Your task to perform on an android device: open app "McDonald's" (install if not already installed) Image 0: 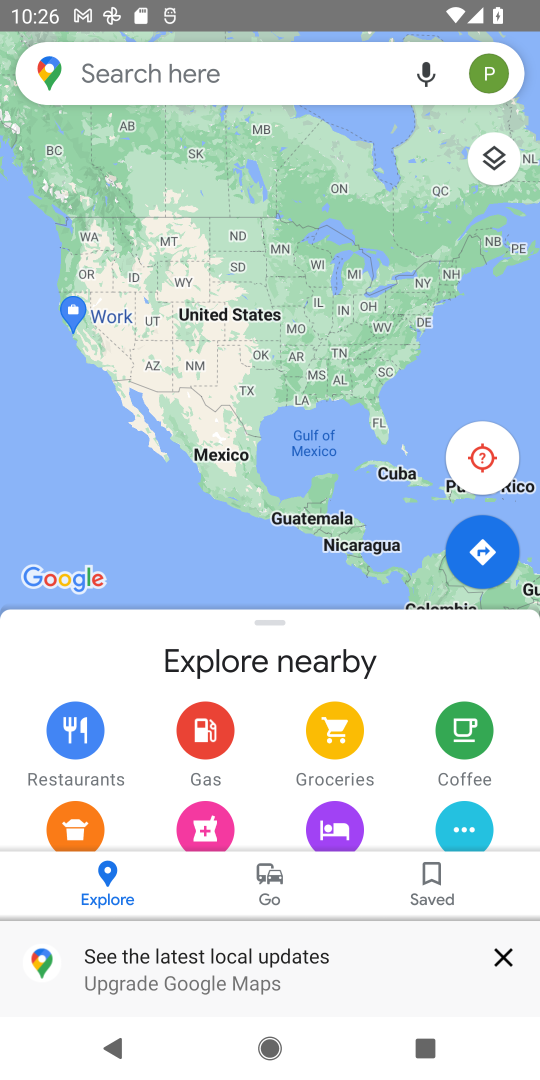
Step 0: press home button
Your task to perform on an android device: open app "McDonald's" (install if not already installed) Image 1: 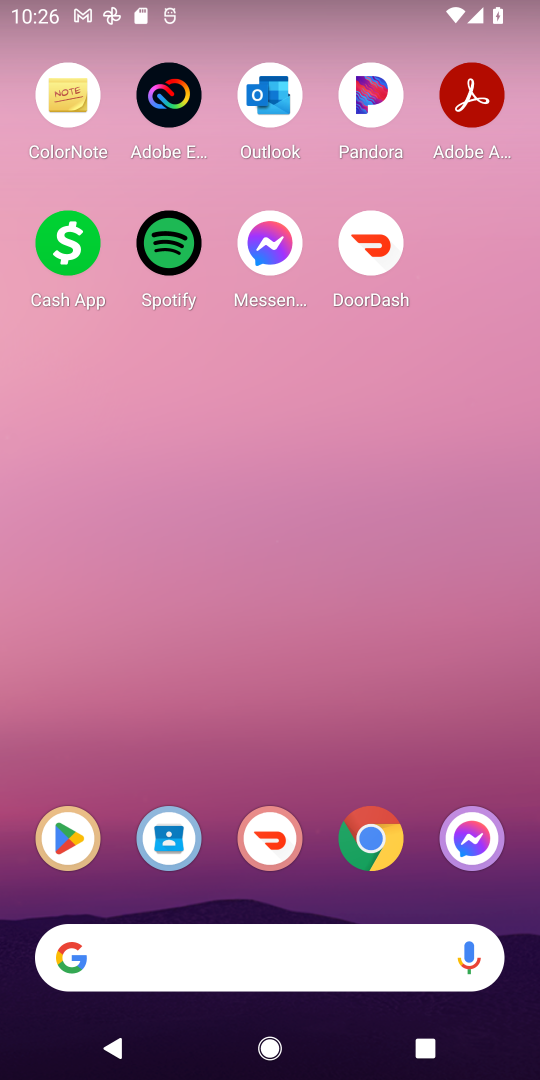
Step 1: click (34, 827)
Your task to perform on an android device: open app "McDonald's" (install if not already installed) Image 2: 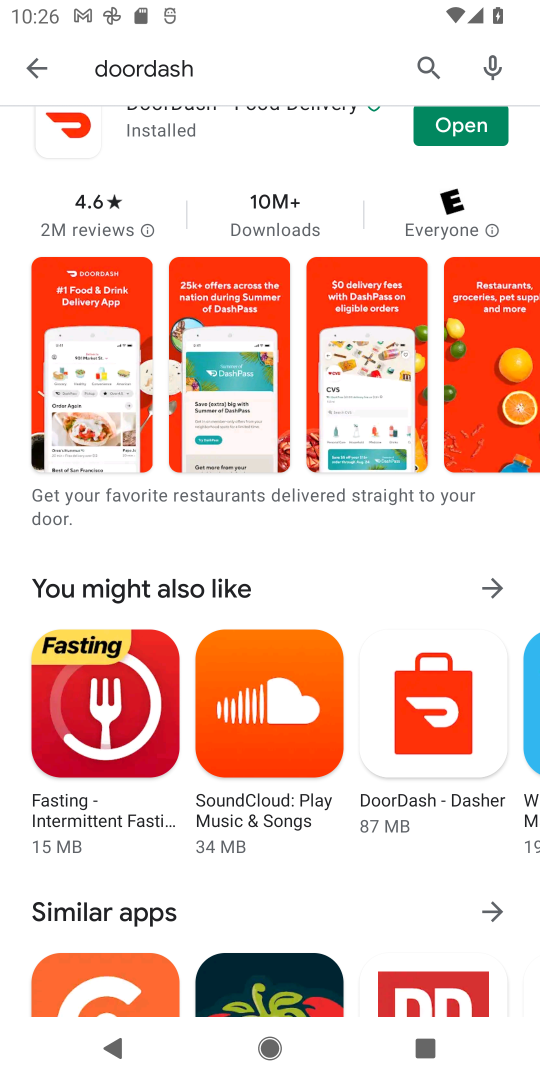
Step 2: click (254, 57)
Your task to perform on an android device: open app "McDonald's" (install if not already installed) Image 3: 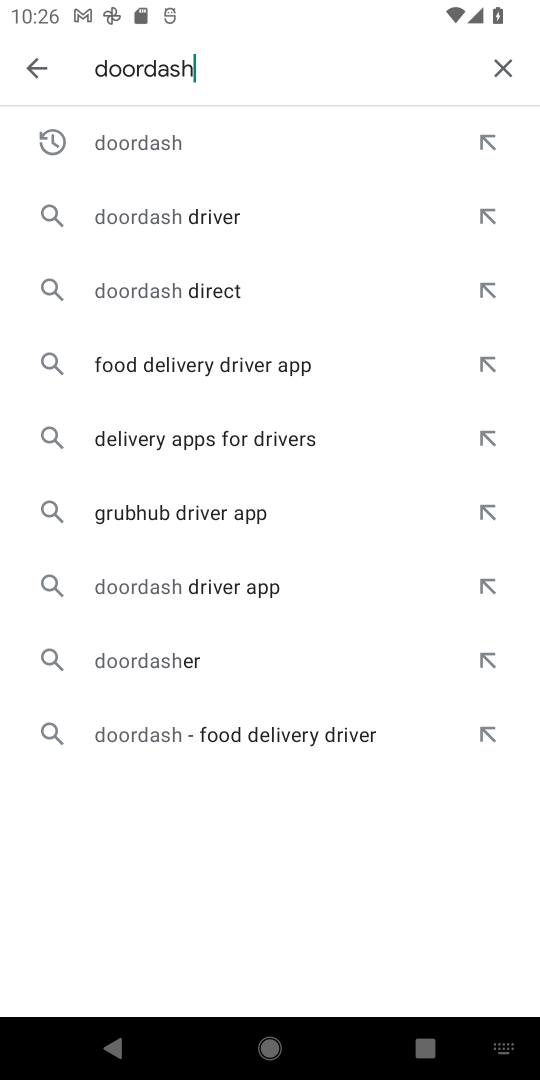
Step 3: click (496, 62)
Your task to perform on an android device: open app "McDonald's" (install if not already installed) Image 4: 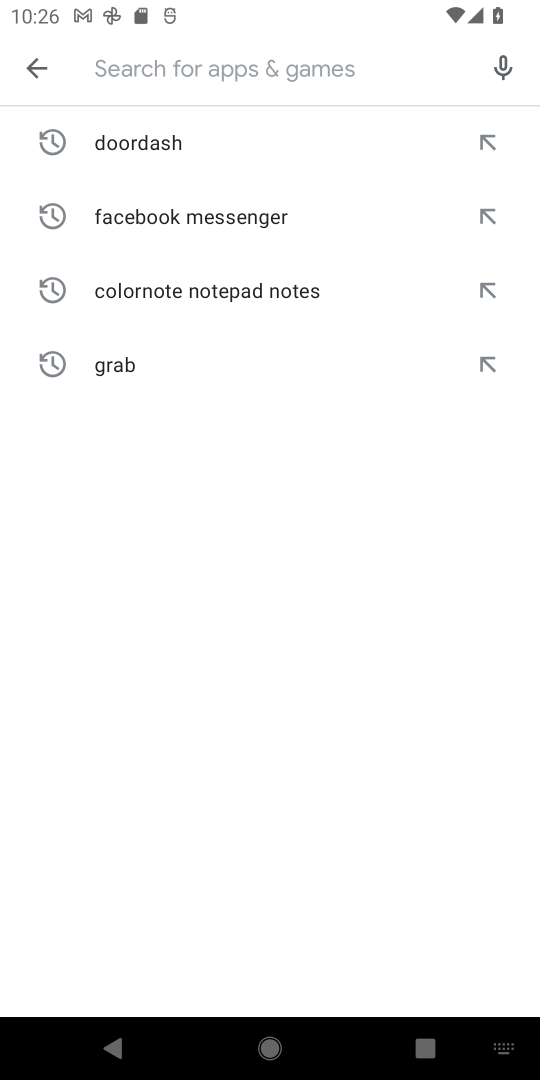
Step 4: type "Mcdonalds"
Your task to perform on an android device: open app "McDonald's" (install if not already installed) Image 5: 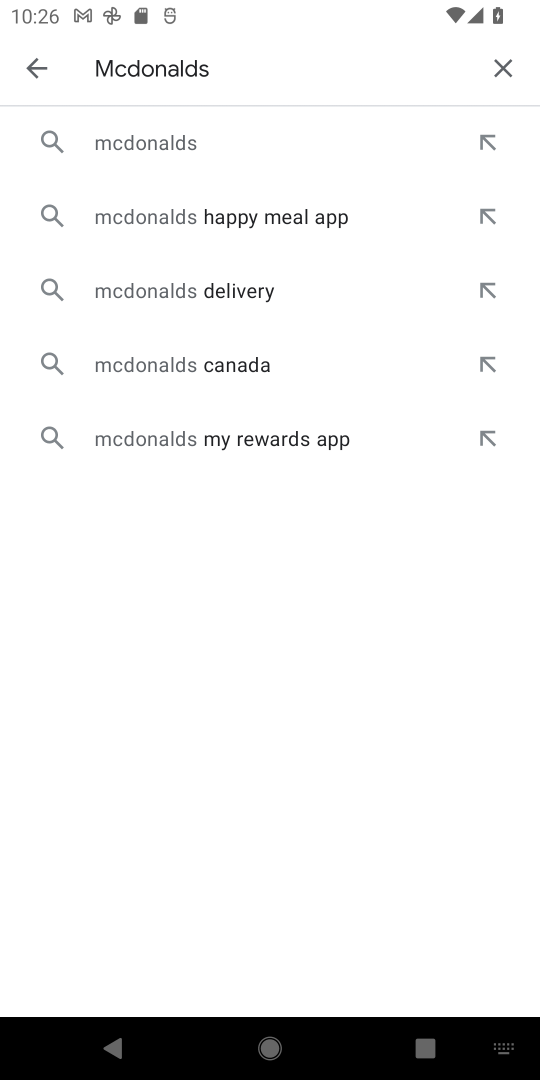
Step 5: click (189, 144)
Your task to perform on an android device: open app "McDonald's" (install if not already installed) Image 6: 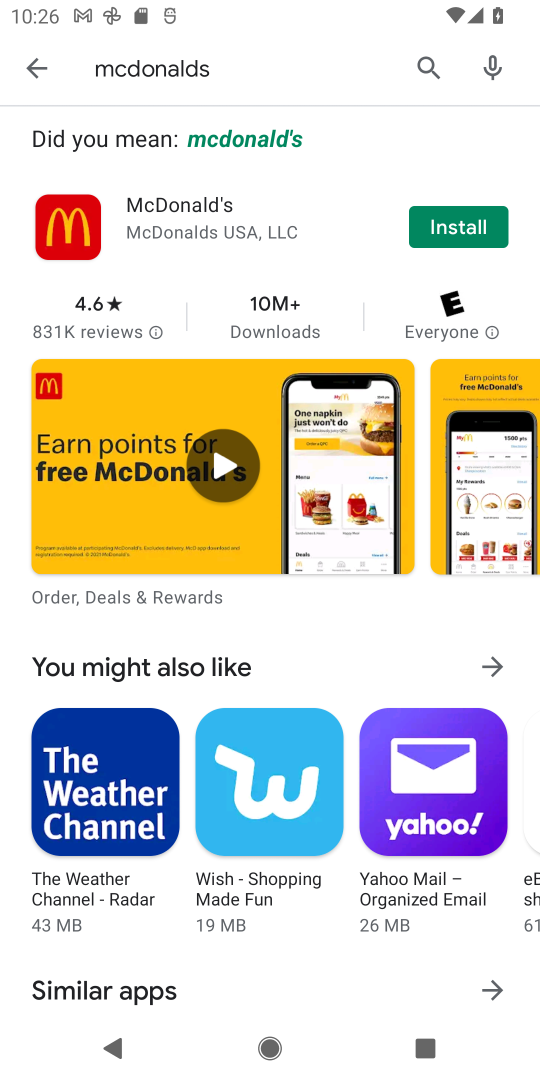
Step 6: click (435, 229)
Your task to perform on an android device: open app "McDonald's" (install if not already installed) Image 7: 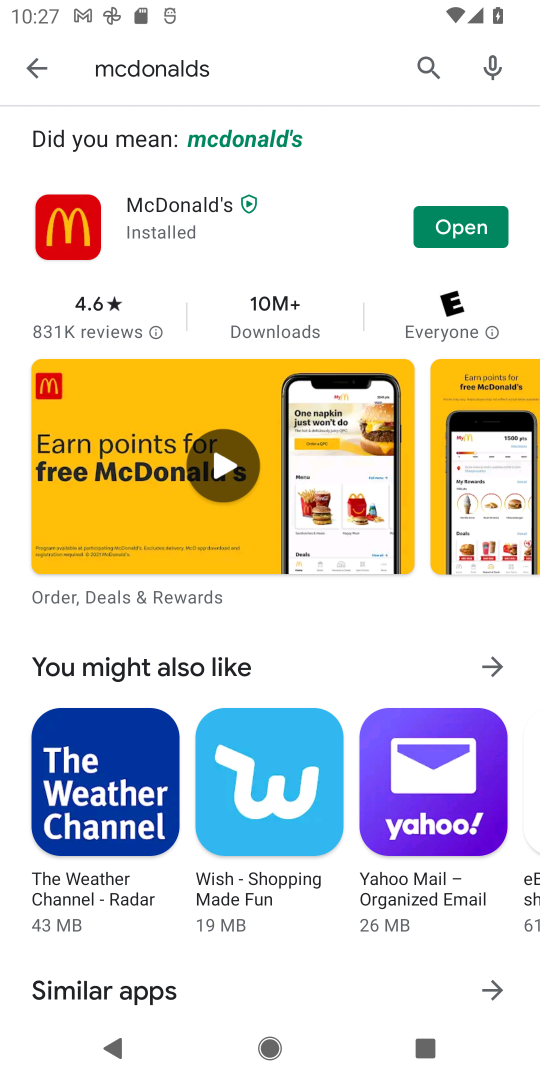
Step 7: click (479, 239)
Your task to perform on an android device: open app "McDonald's" (install if not already installed) Image 8: 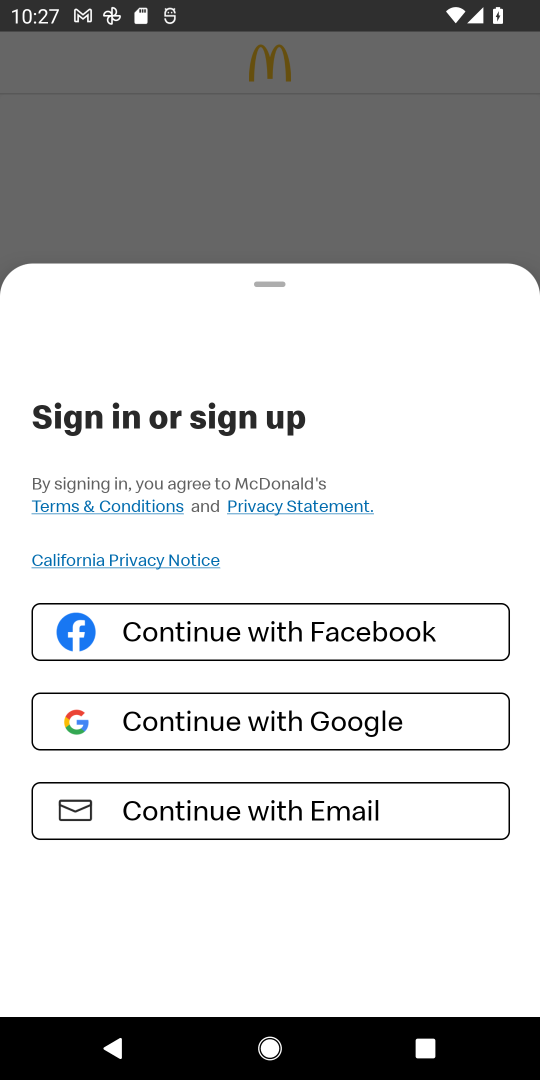
Step 8: click (327, 727)
Your task to perform on an android device: open app "McDonald's" (install if not already installed) Image 9: 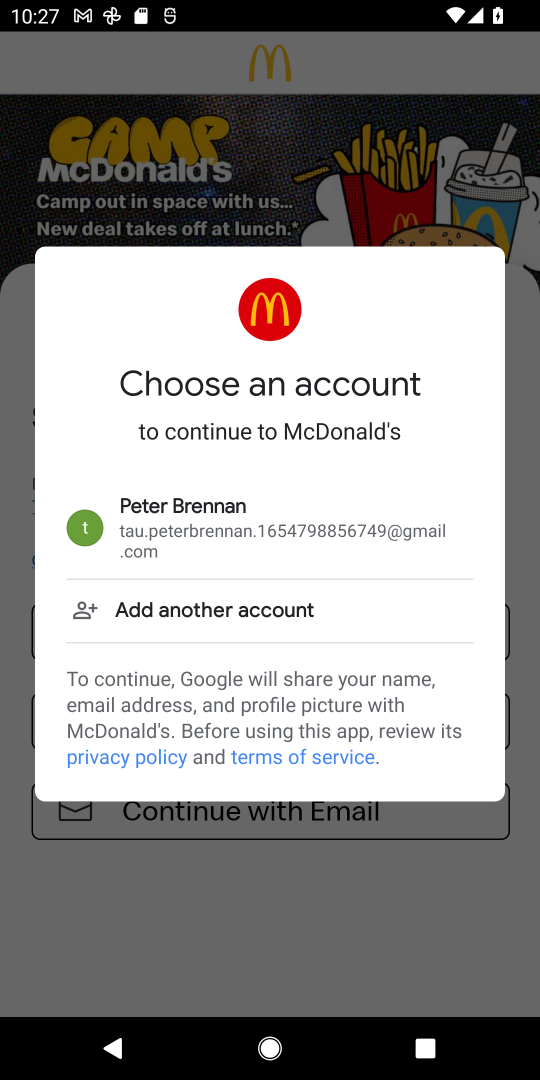
Step 9: click (235, 518)
Your task to perform on an android device: open app "McDonald's" (install if not already installed) Image 10: 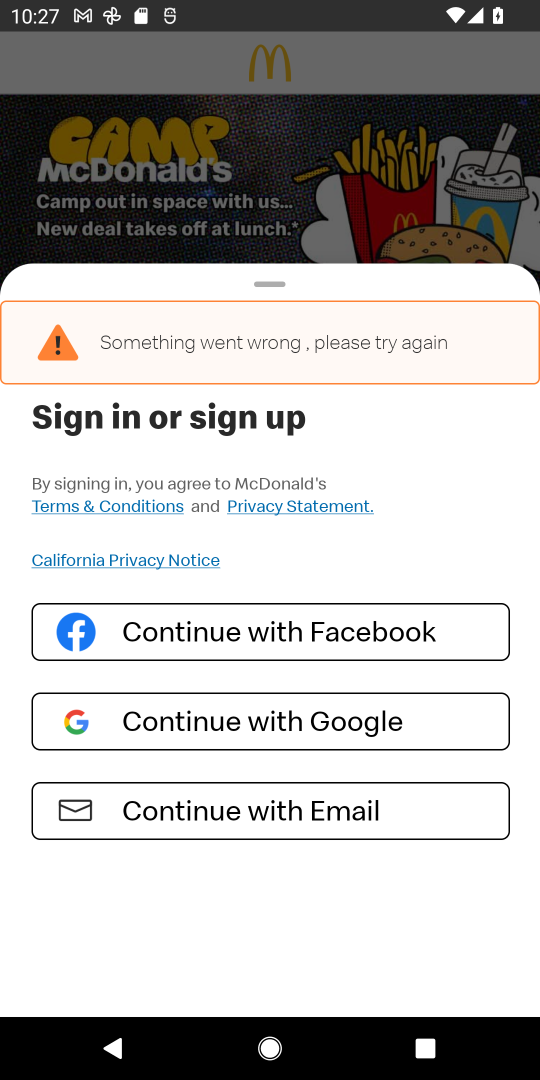
Step 10: click (349, 729)
Your task to perform on an android device: open app "McDonald's" (install if not already installed) Image 11: 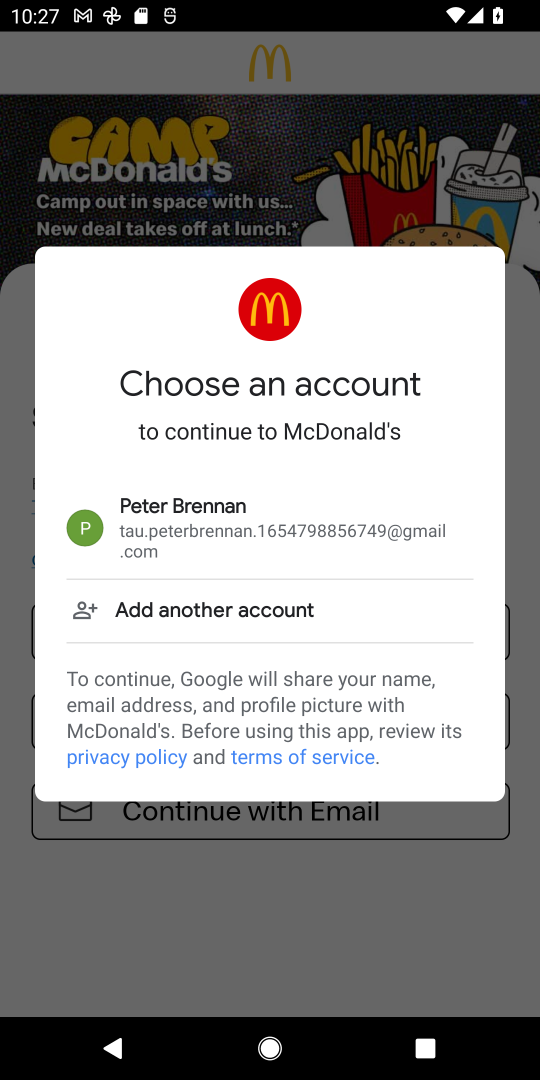
Step 11: click (358, 528)
Your task to perform on an android device: open app "McDonald's" (install if not already installed) Image 12: 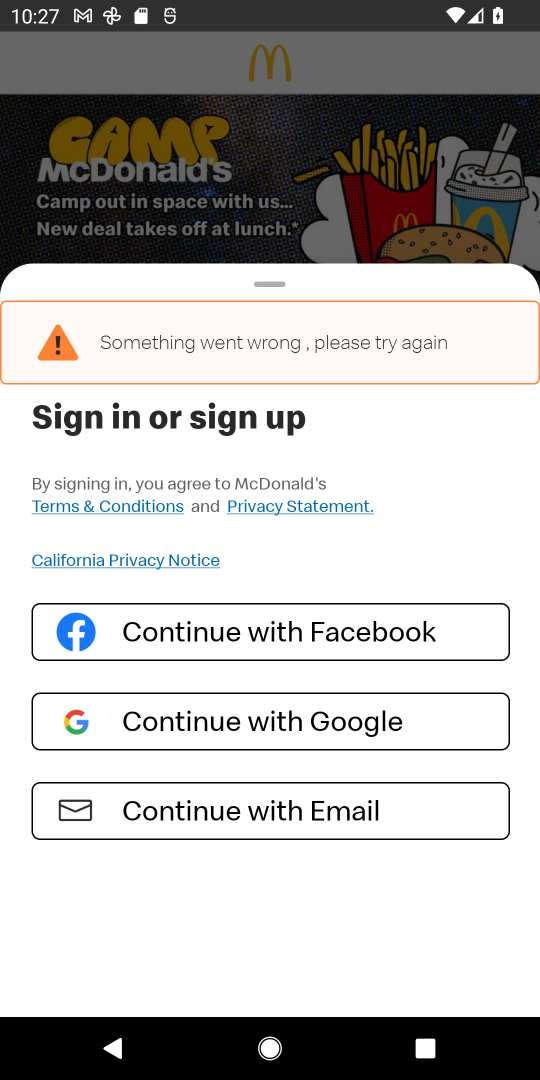
Step 12: task complete